Your task to perform on an android device: Open Reddit.com Image 0: 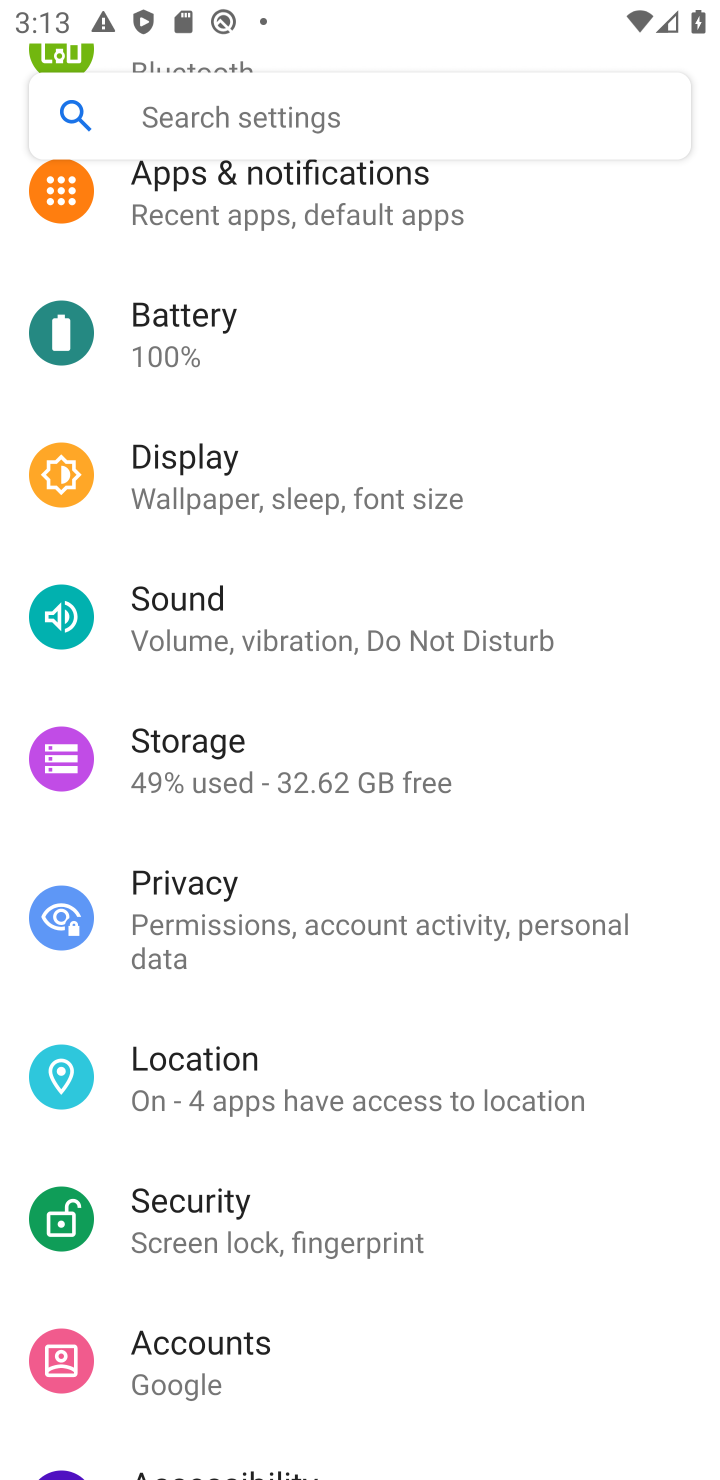
Step 0: press home button
Your task to perform on an android device: Open Reddit.com Image 1: 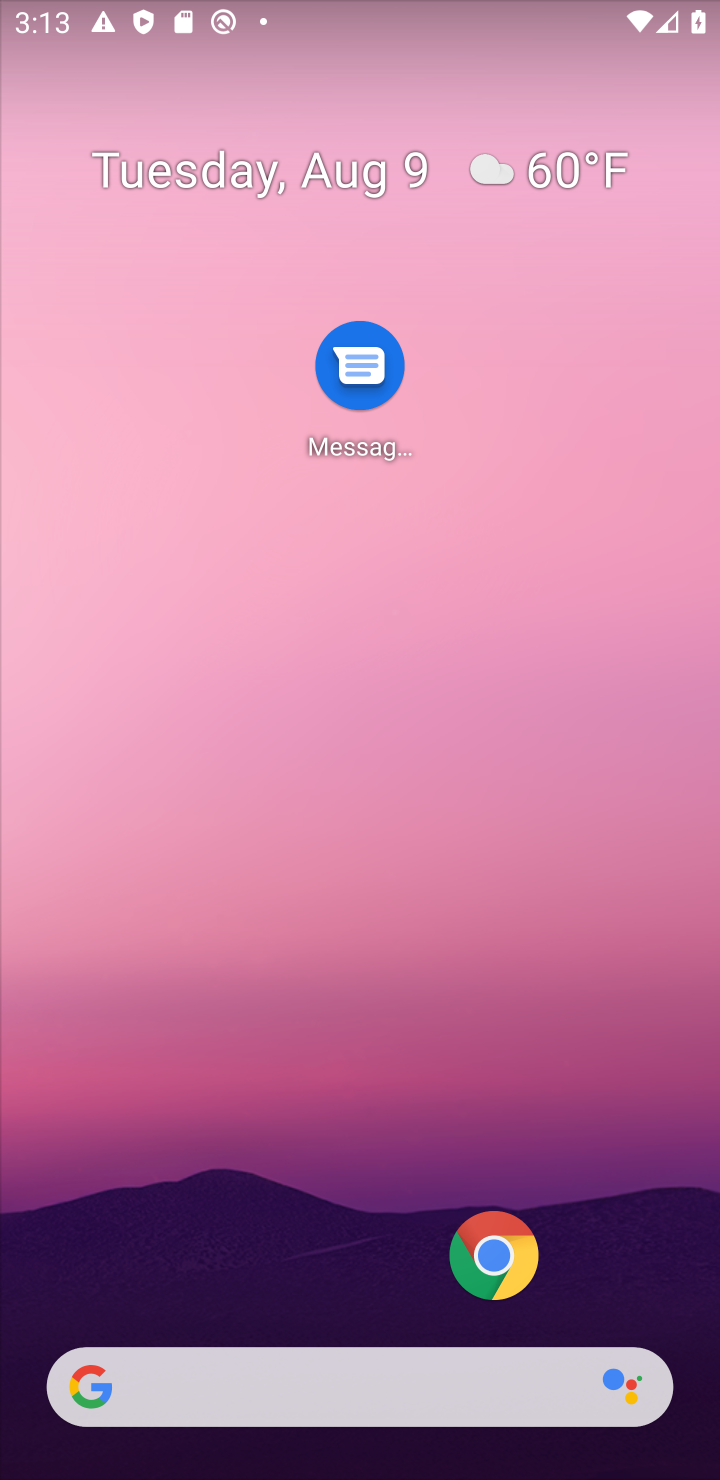
Step 1: click (302, 479)
Your task to perform on an android device: Open Reddit.com Image 2: 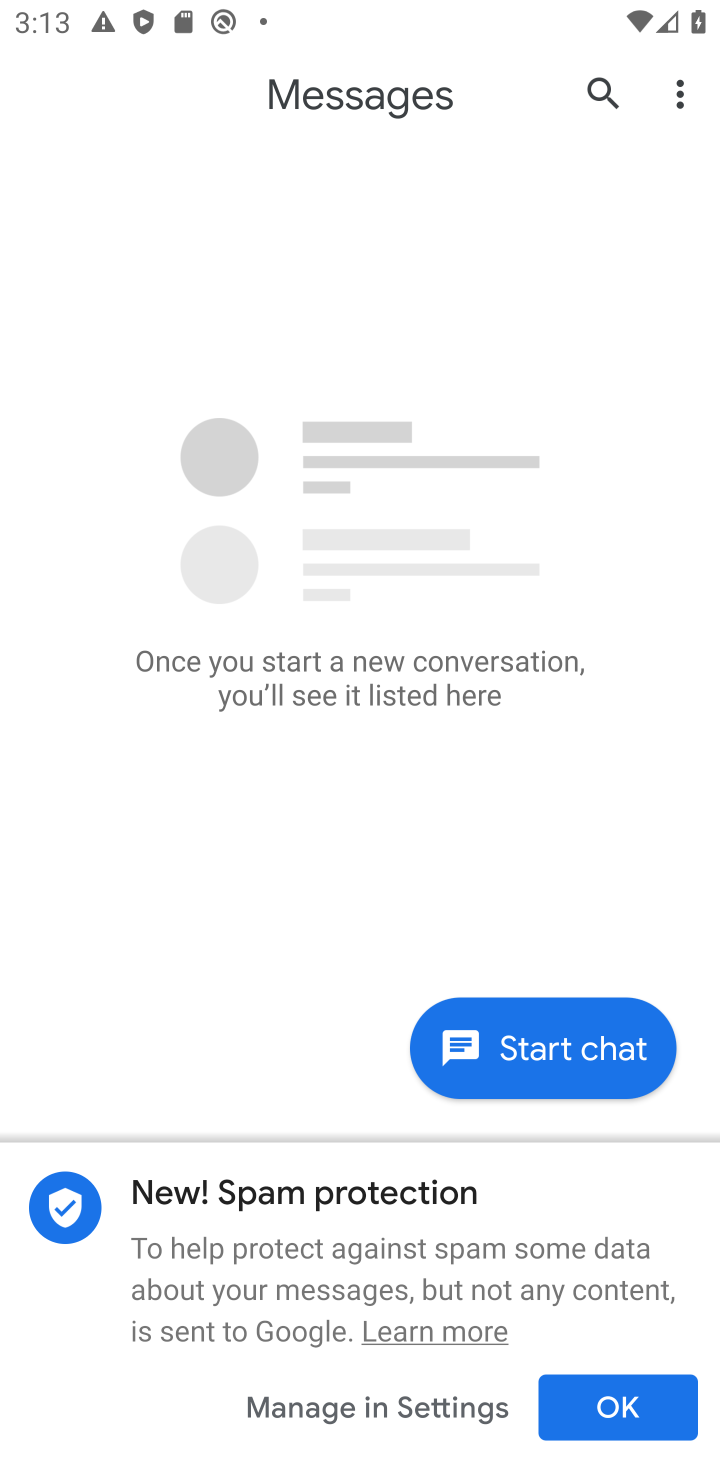
Step 2: press home button
Your task to perform on an android device: Open Reddit.com Image 3: 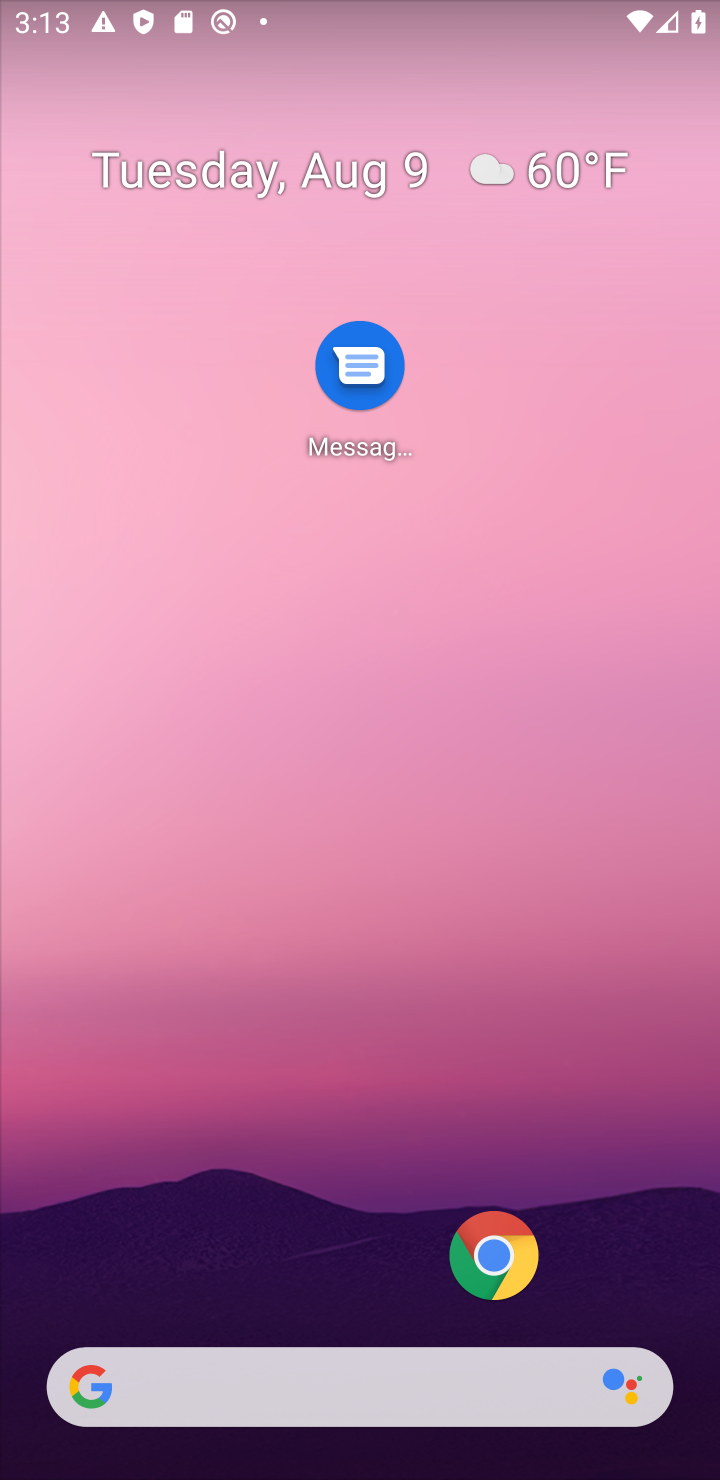
Step 3: drag from (287, 1043) to (371, 267)
Your task to perform on an android device: Open Reddit.com Image 4: 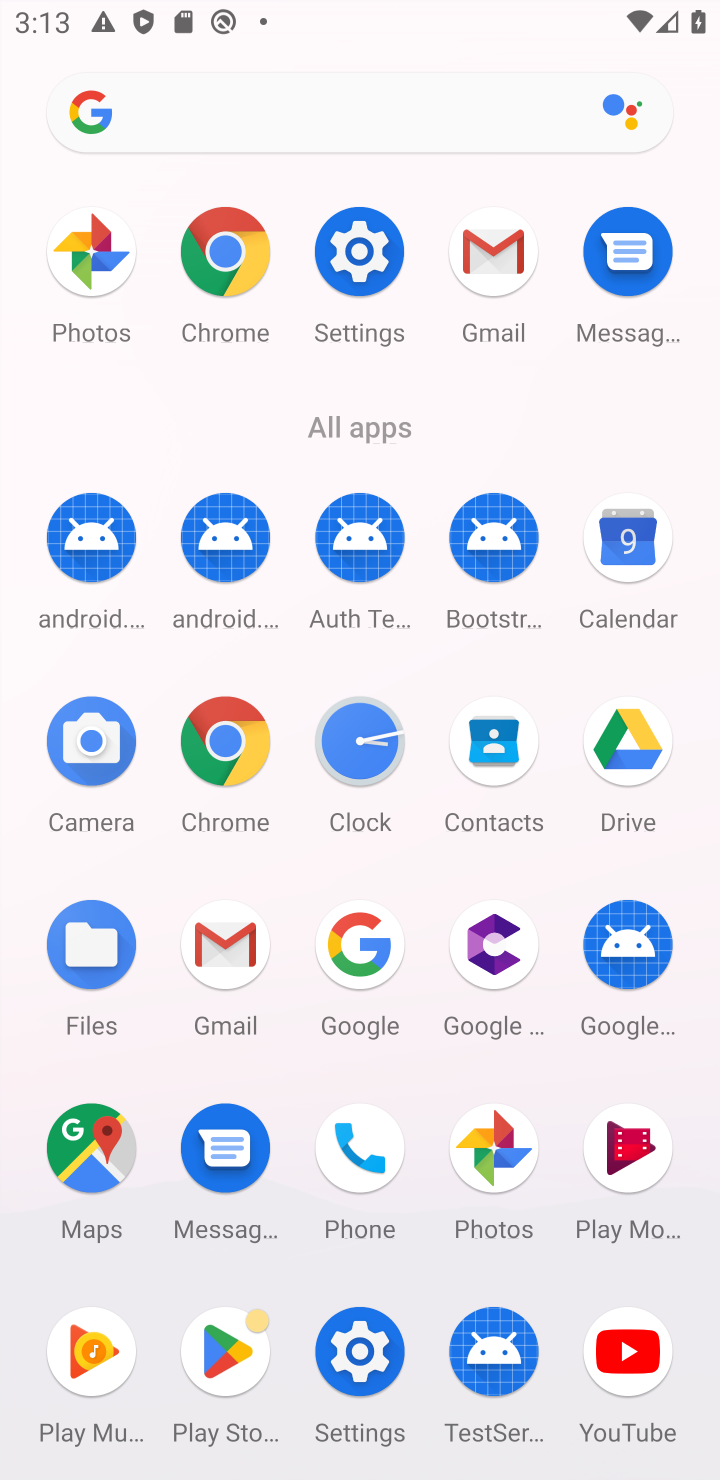
Step 4: click (234, 253)
Your task to perform on an android device: Open Reddit.com Image 5: 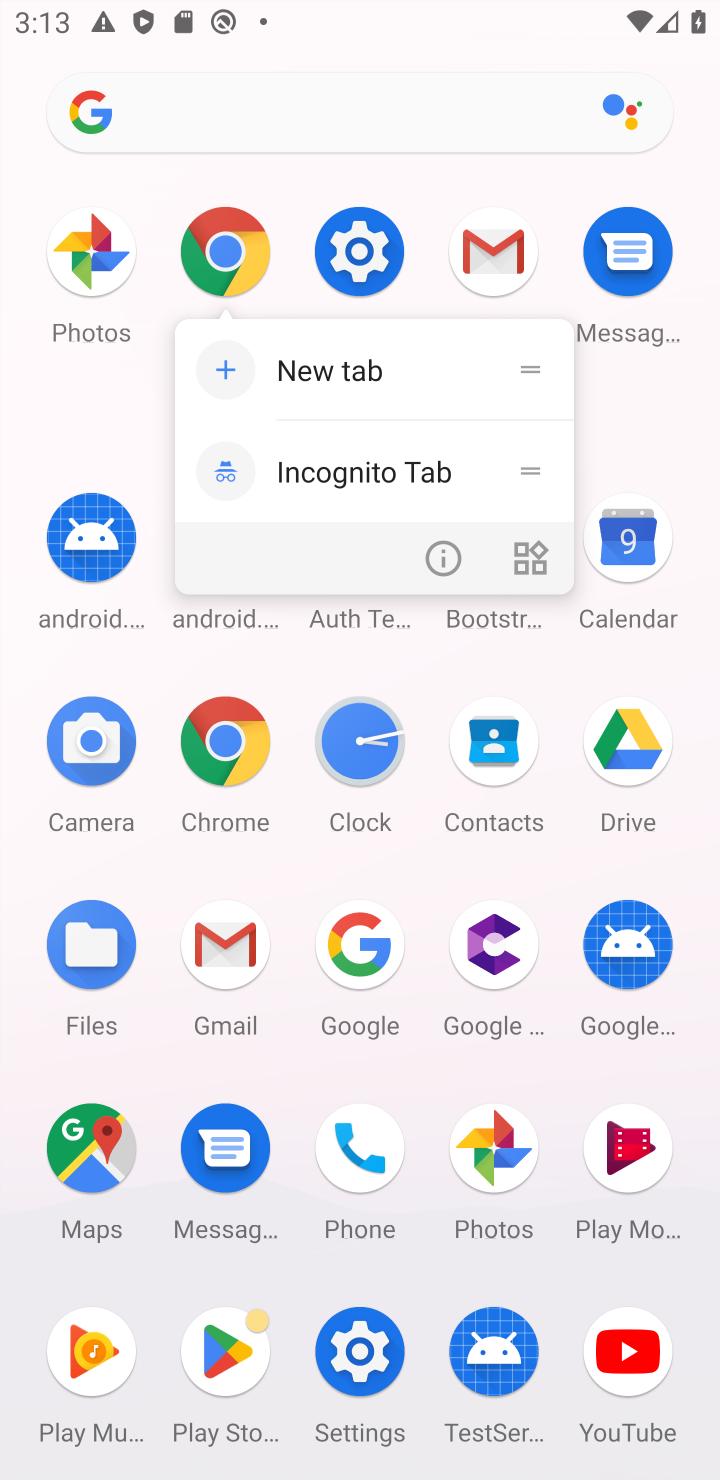
Step 5: click (234, 253)
Your task to perform on an android device: Open Reddit.com Image 6: 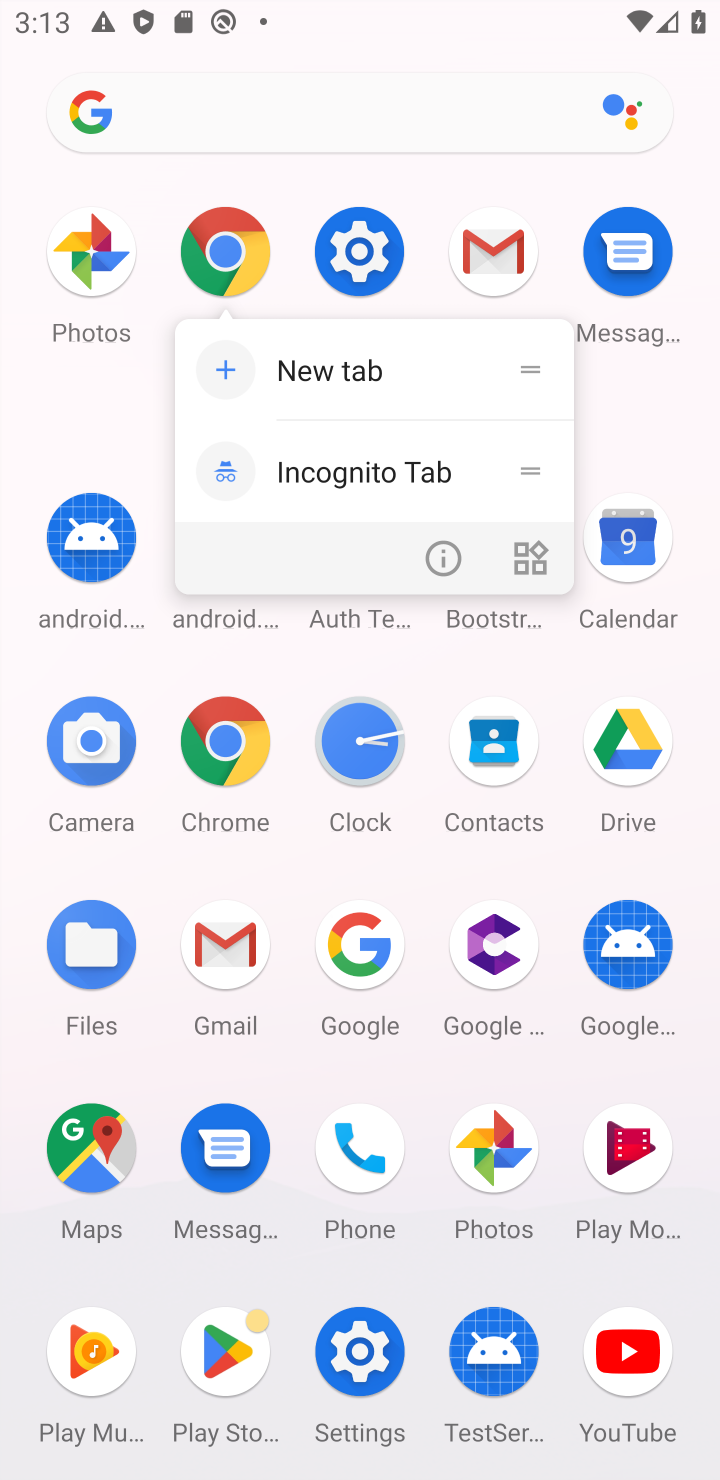
Step 6: click (234, 253)
Your task to perform on an android device: Open Reddit.com Image 7: 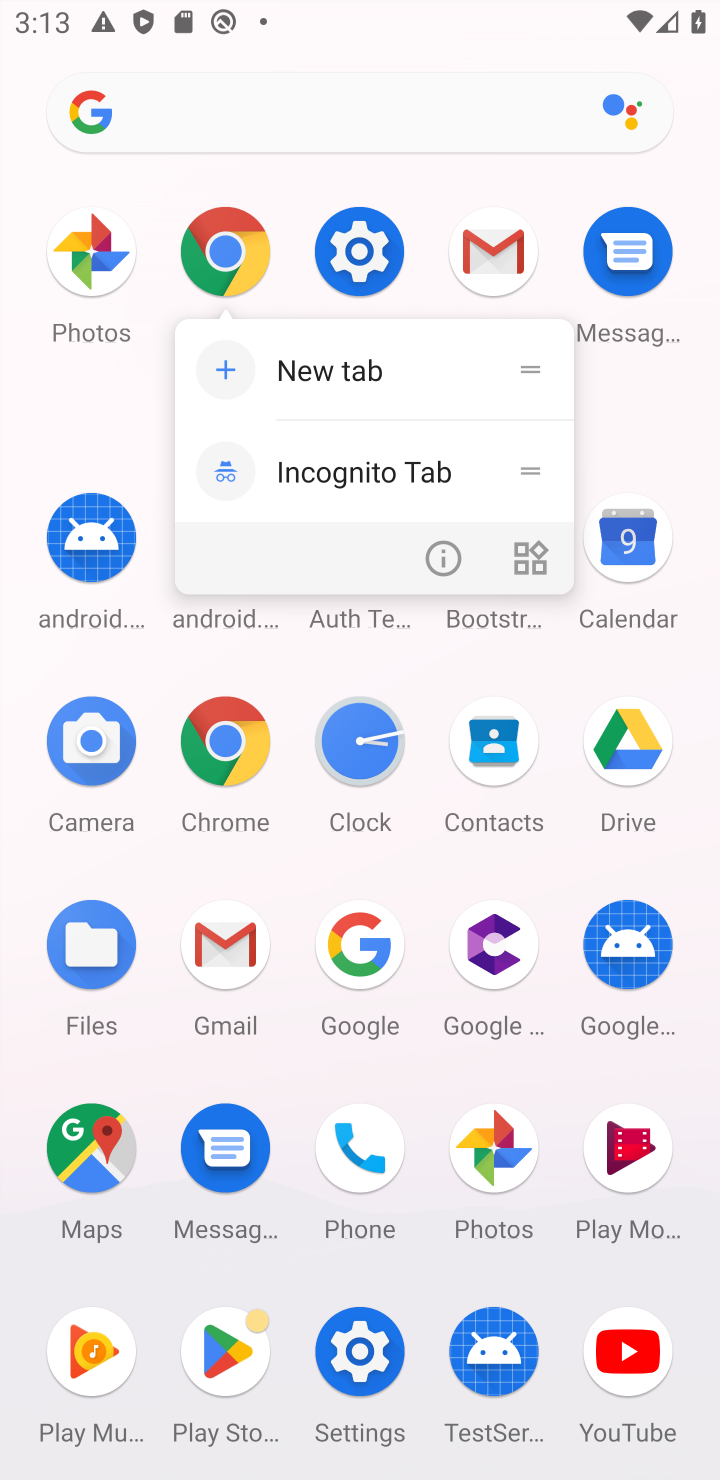
Step 7: click (234, 253)
Your task to perform on an android device: Open Reddit.com Image 8: 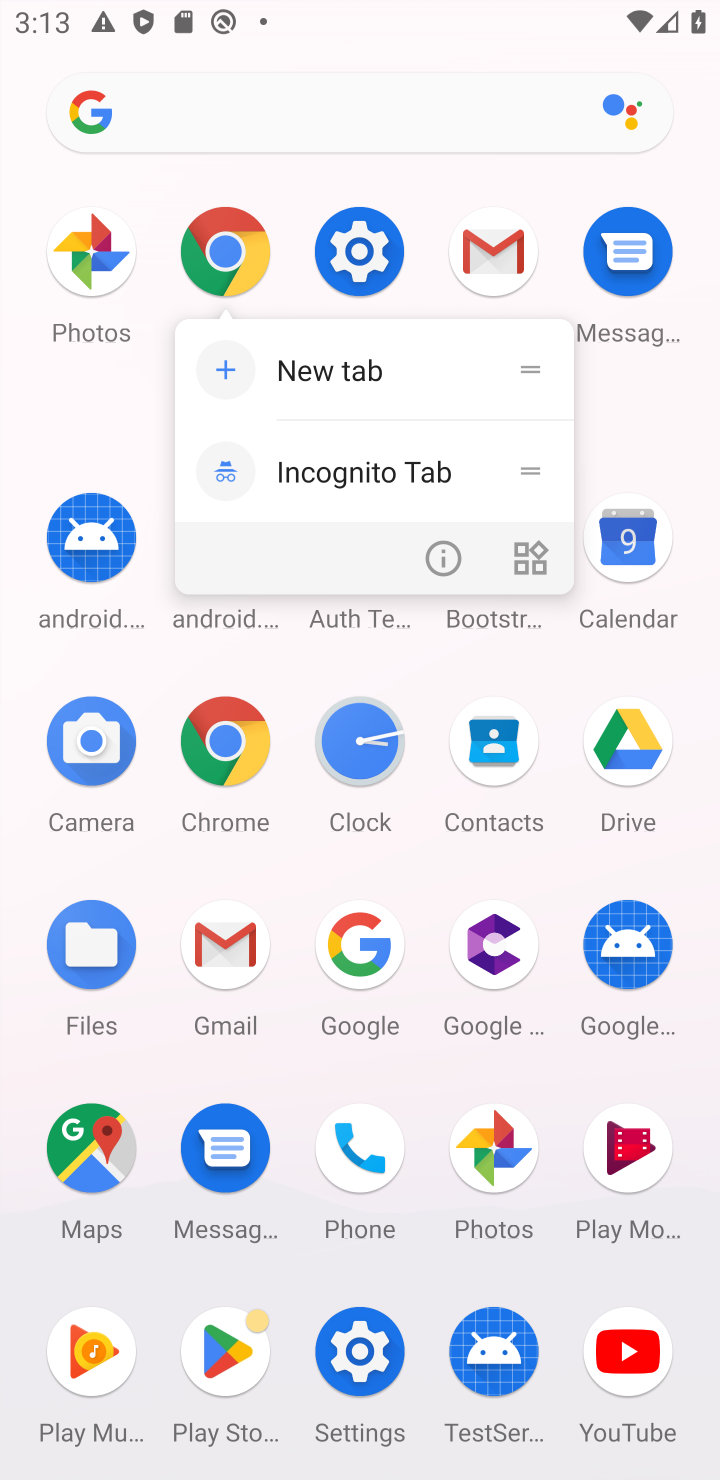
Step 8: click (234, 253)
Your task to perform on an android device: Open Reddit.com Image 9: 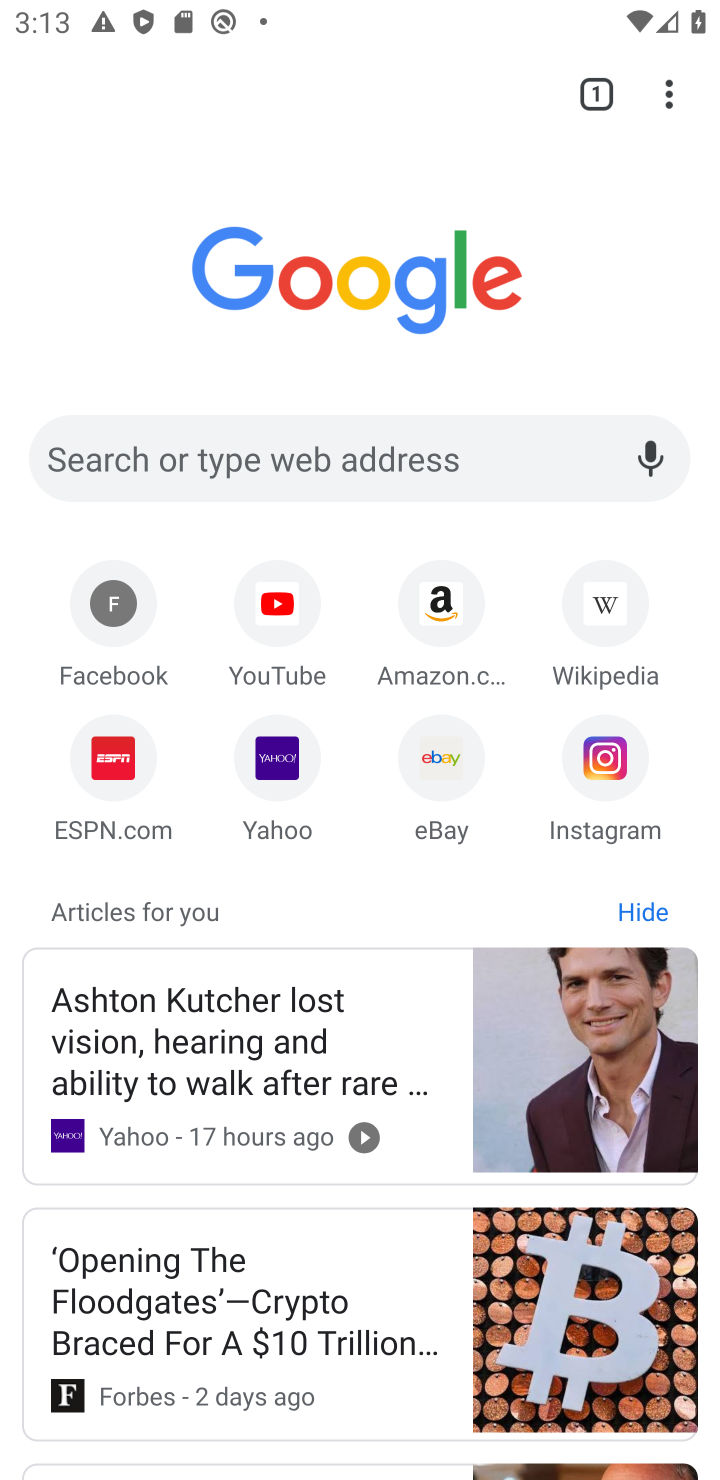
Step 9: click (318, 443)
Your task to perform on an android device: Open Reddit.com Image 10: 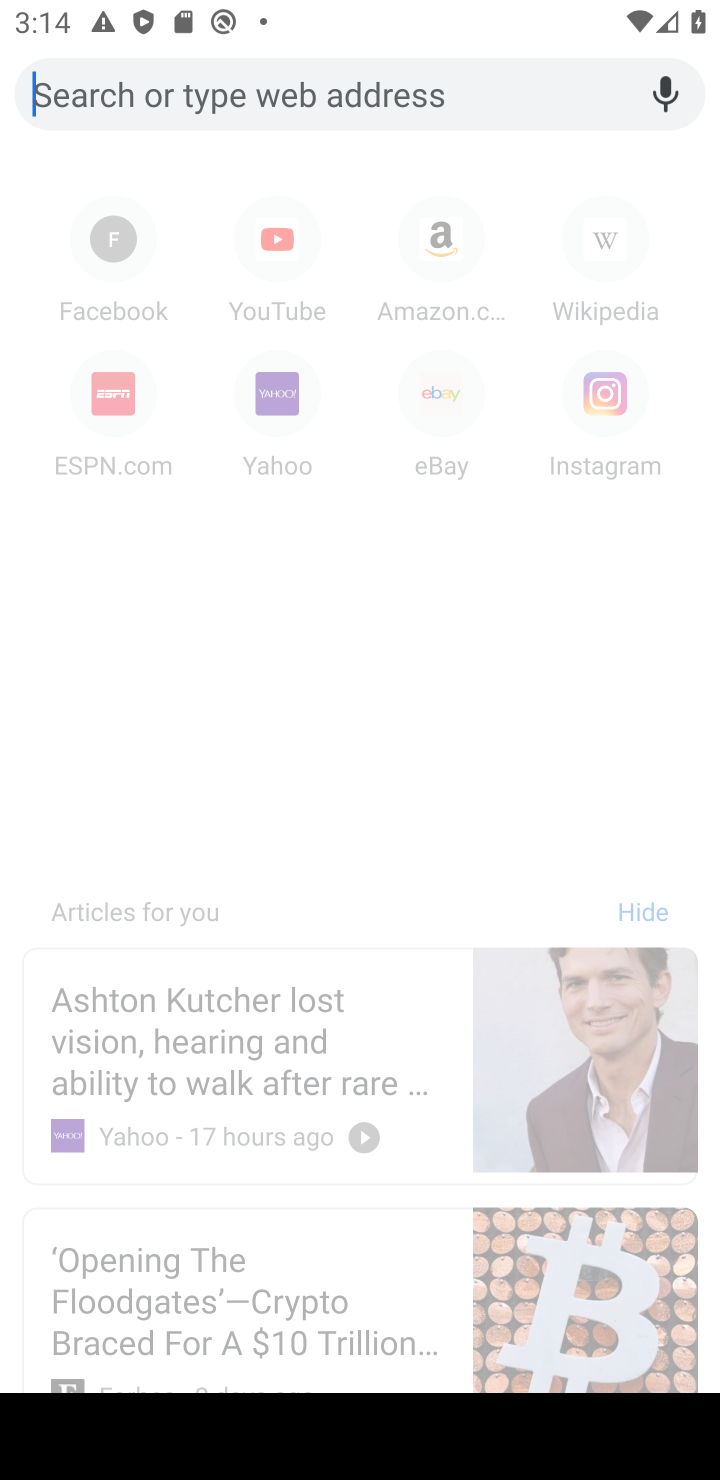
Step 10: type " Reddit.com "
Your task to perform on an android device: Open Reddit.com Image 11: 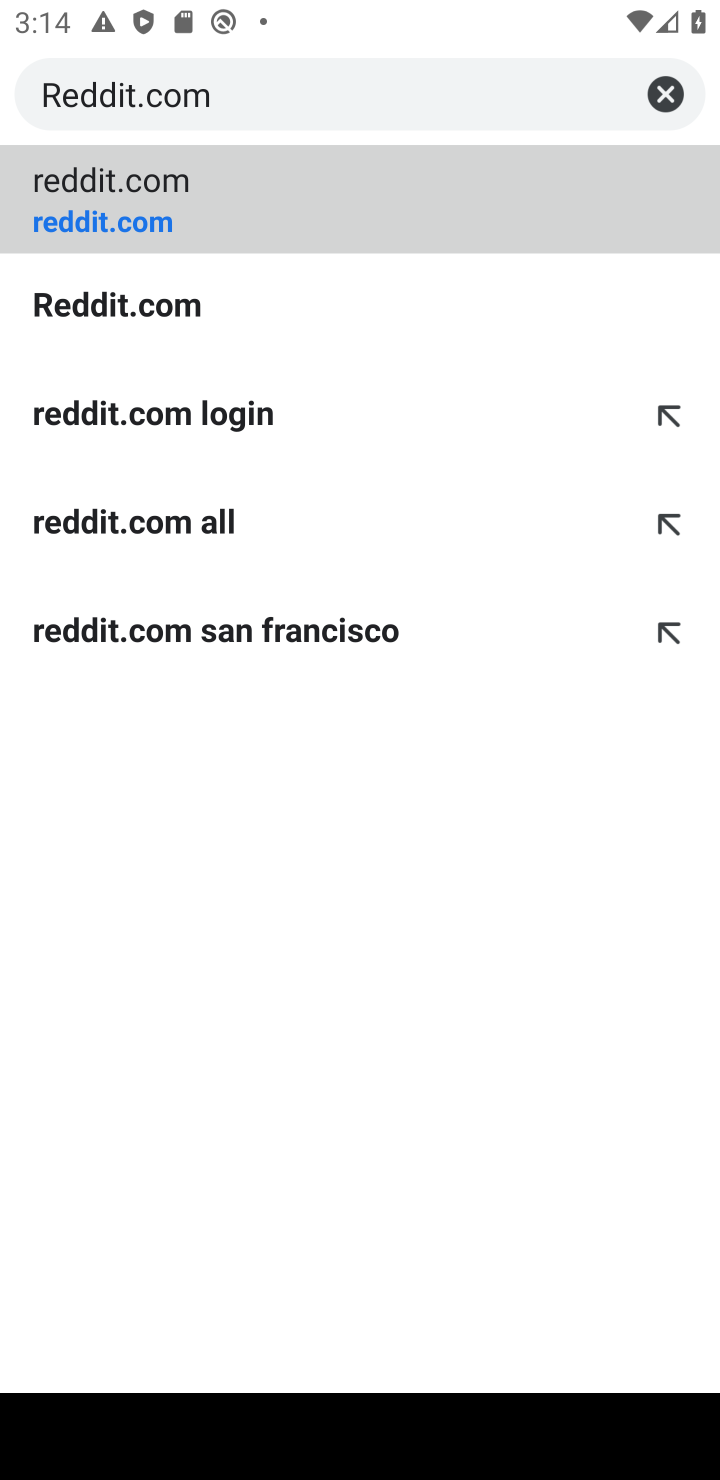
Step 11: click (193, 193)
Your task to perform on an android device: Open Reddit.com Image 12: 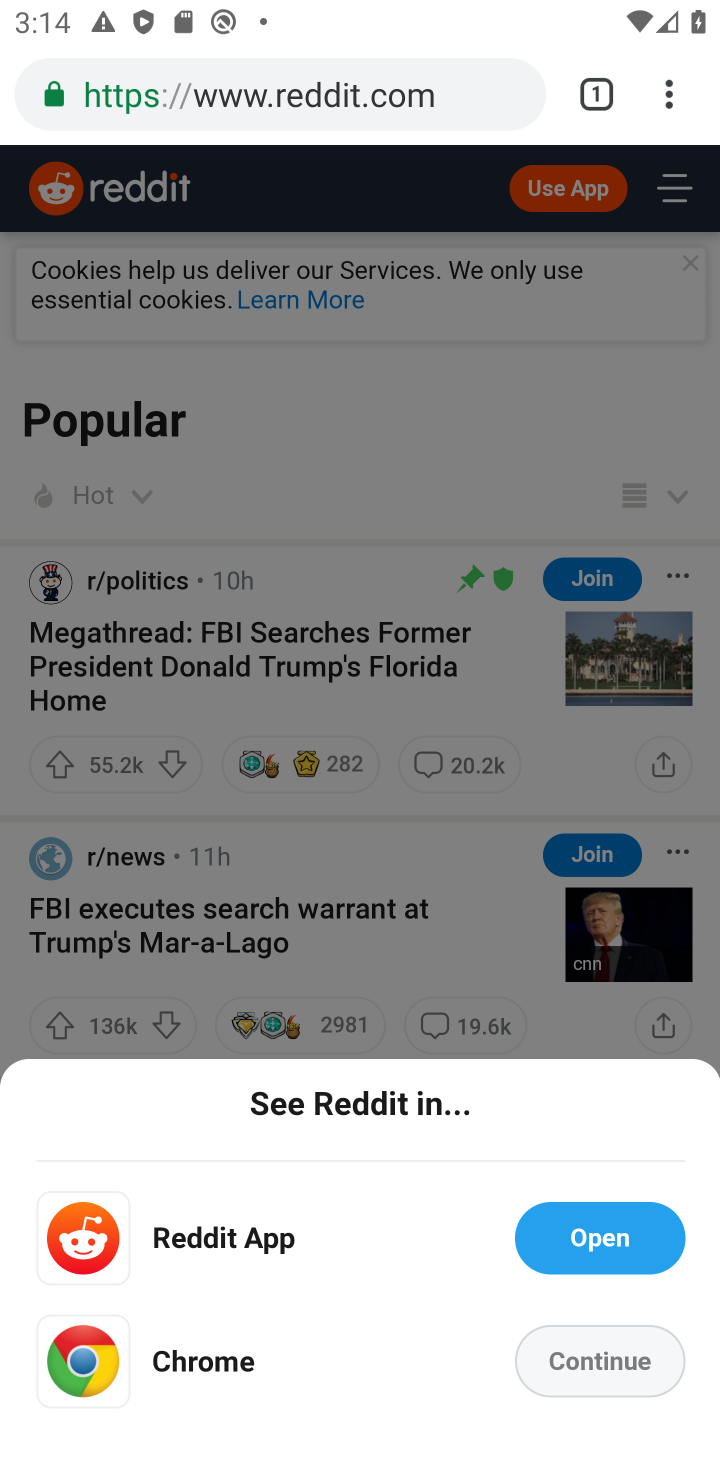
Step 12: click (629, 1255)
Your task to perform on an android device: Open Reddit.com Image 13: 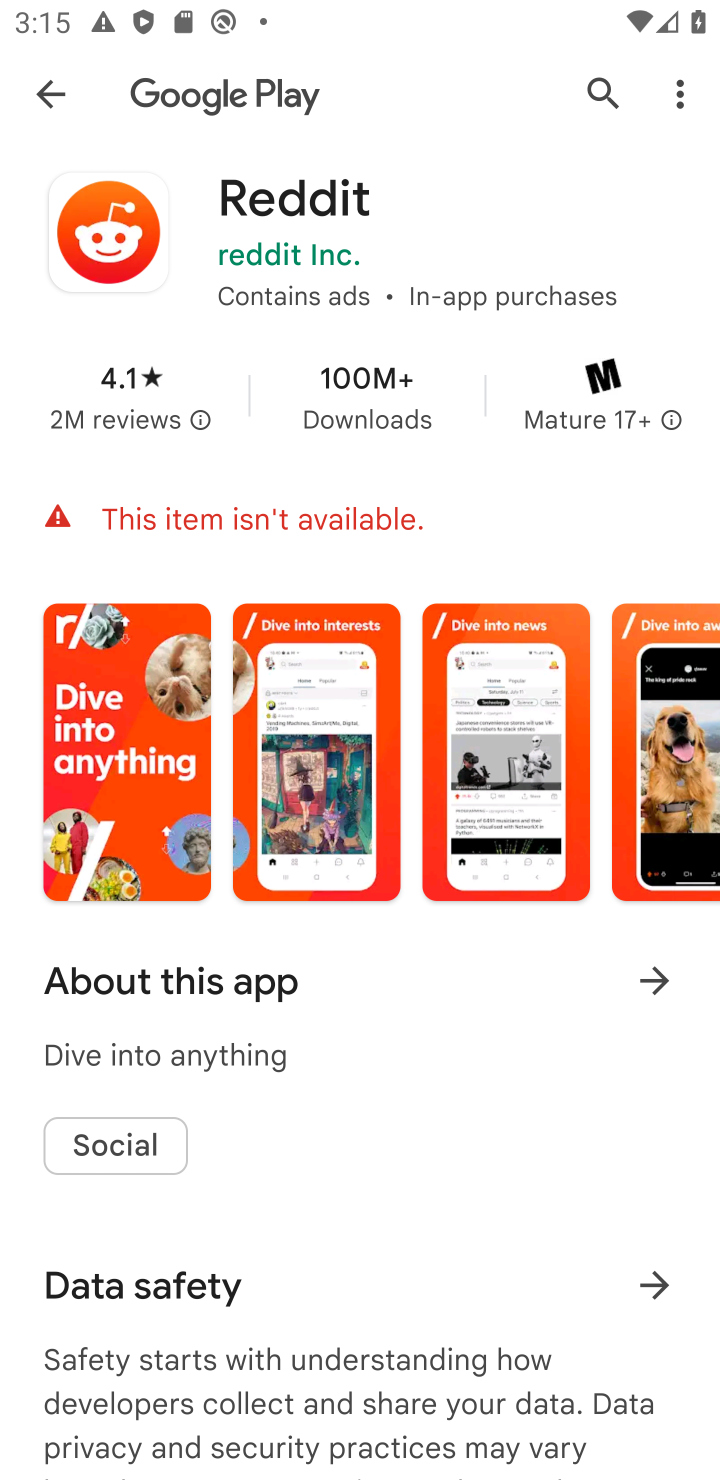
Step 13: task complete